Your task to perform on an android device: toggle show notifications on the lock screen Image 0: 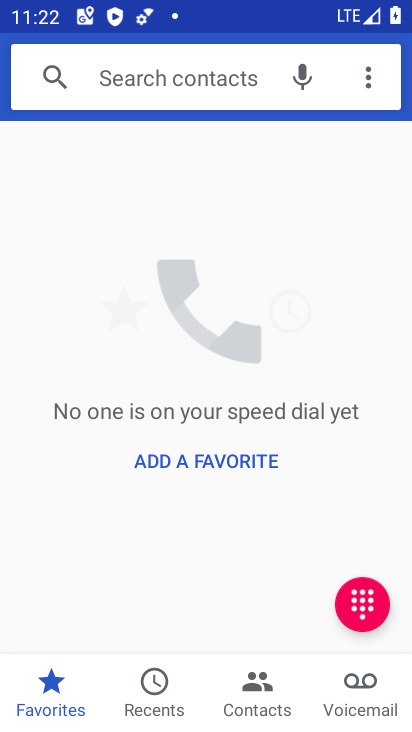
Step 0: press home button
Your task to perform on an android device: toggle show notifications on the lock screen Image 1: 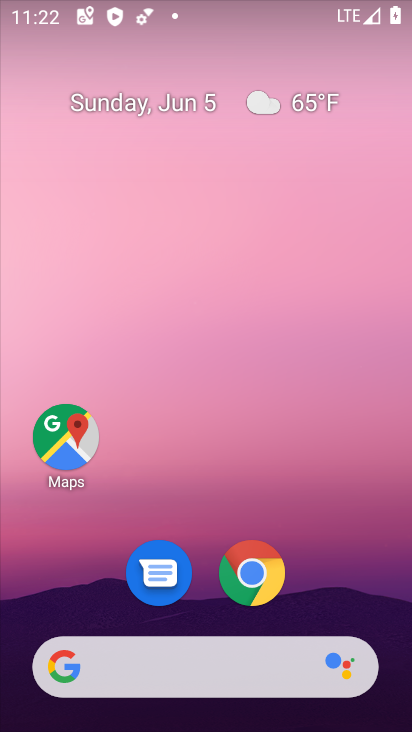
Step 1: drag from (235, 464) to (308, 1)
Your task to perform on an android device: toggle show notifications on the lock screen Image 2: 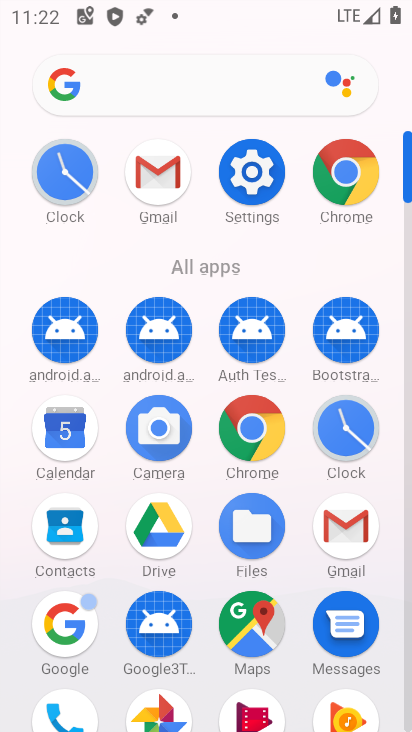
Step 2: drag from (198, 259) to (220, 33)
Your task to perform on an android device: toggle show notifications on the lock screen Image 3: 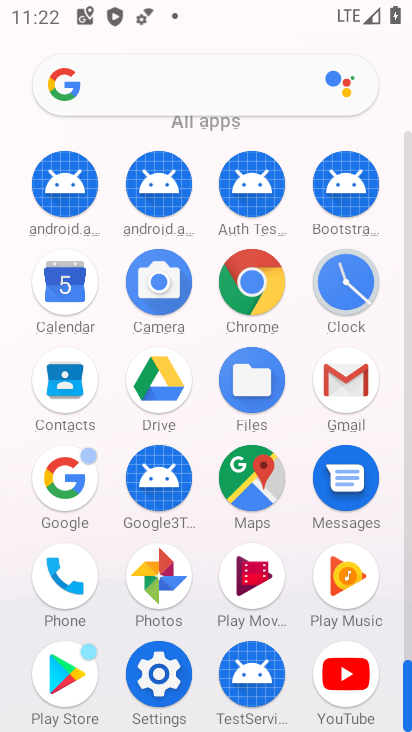
Step 3: click (165, 696)
Your task to perform on an android device: toggle show notifications on the lock screen Image 4: 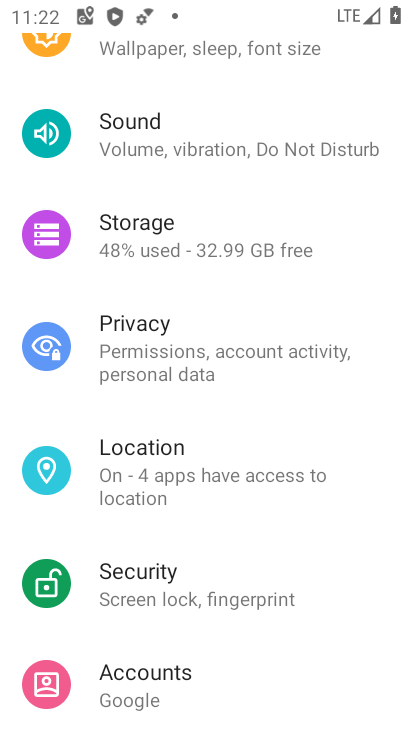
Step 4: drag from (203, 137) to (239, 703)
Your task to perform on an android device: toggle show notifications on the lock screen Image 5: 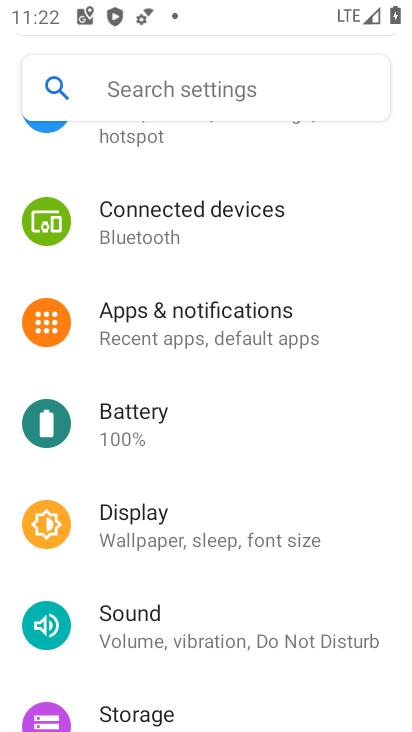
Step 5: drag from (253, 208) to (310, 603)
Your task to perform on an android device: toggle show notifications on the lock screen Image 6: 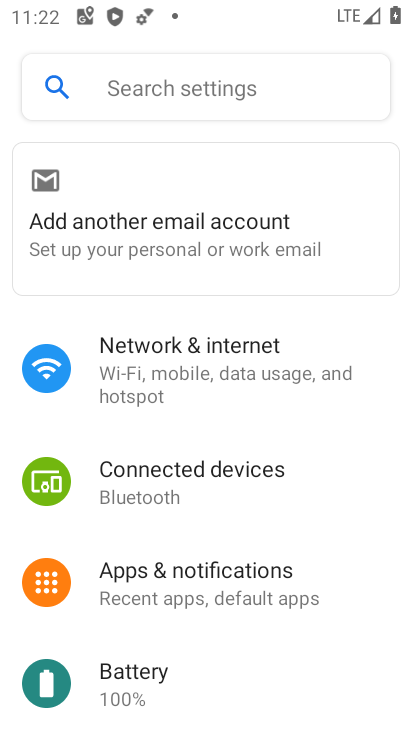
Step 6: click (203, 591)
Your task to perform on an android device: toggle show notifications on the lock screen Image 7: 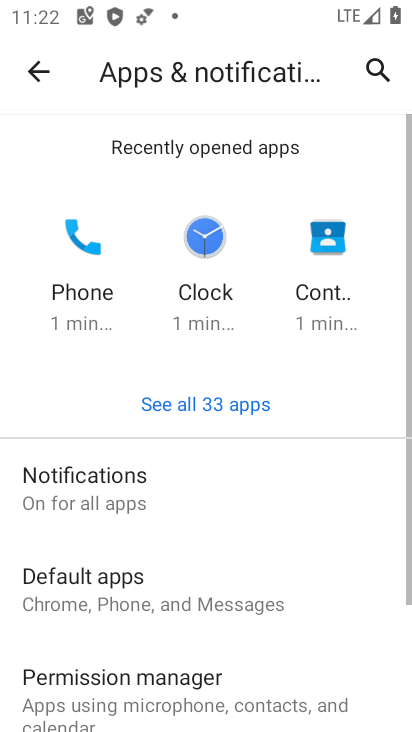
Step 7: drag from (238, 577) to (244, 238)
Your task to perform on an android device: toggle show notifications on the lock screen Image 8: 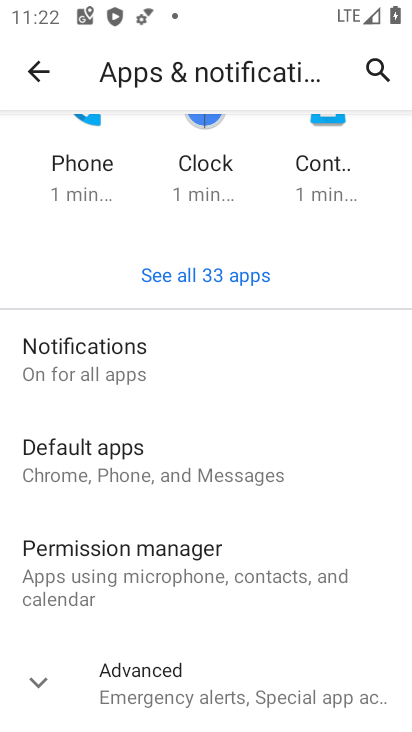
Step 8: click (152, 354)
Your task to perform on an android device: toggle show notifications on the lock screen Image 9: 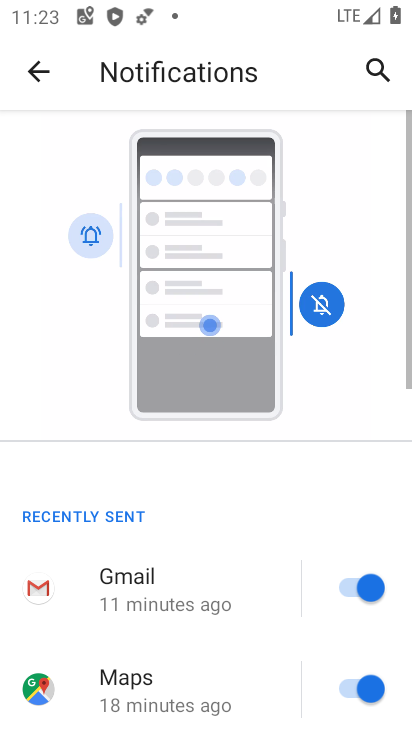
Step 9: drag from (197, 486) to (217, 57)
Your task to perform on an android device: toggle show notifications on the lock screen Image 10: 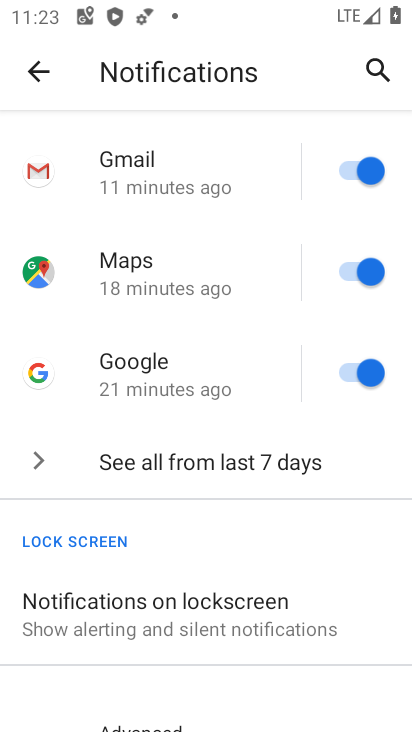
Step 10: click (159, 594)
Your task to perform on an android device: toggle show notifications on the lock screen Image 11: 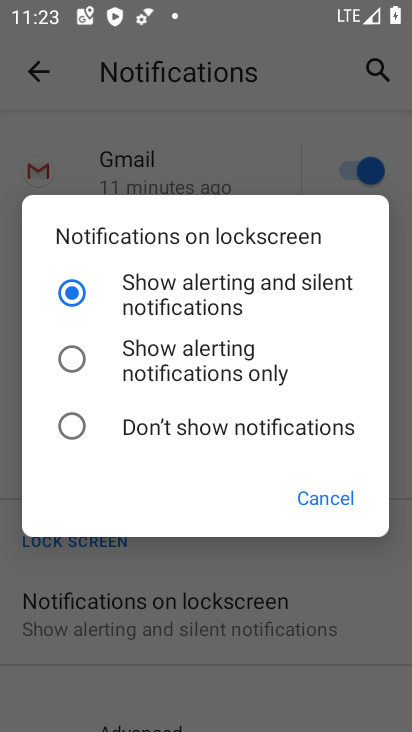
Step 11: click (109, 371)
Your task to perform on an android device: toggle show notifications on the lock screen Image 12: 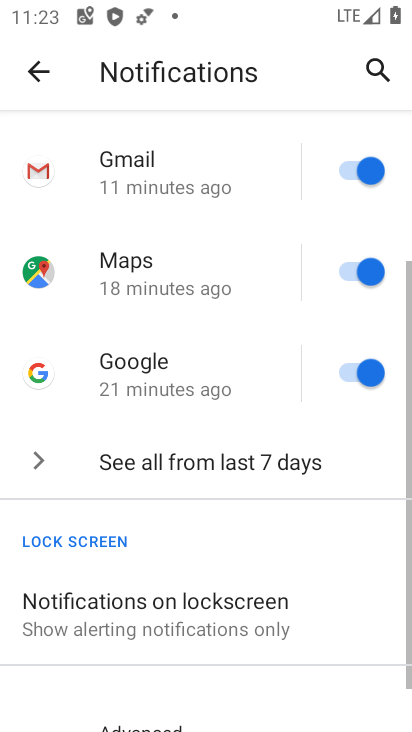
Step 12: task complete